Your task to perform on an android device: Open Google Chrome and open the bookmarks view Image 0: 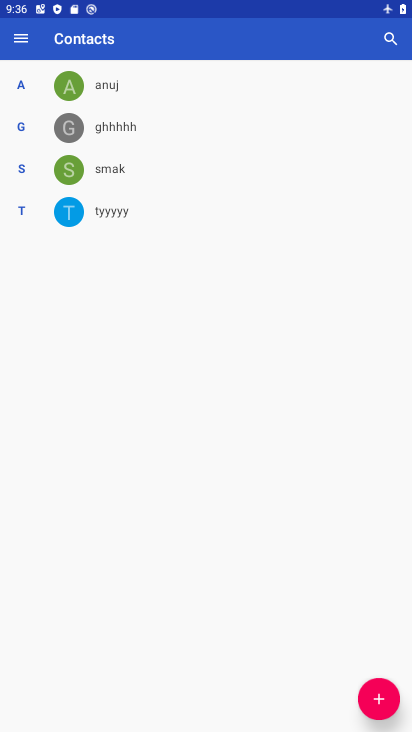
Step 0: press home button
Your task to perform on an android device: Open Google Chrome and open the bookmarks view Image 1: 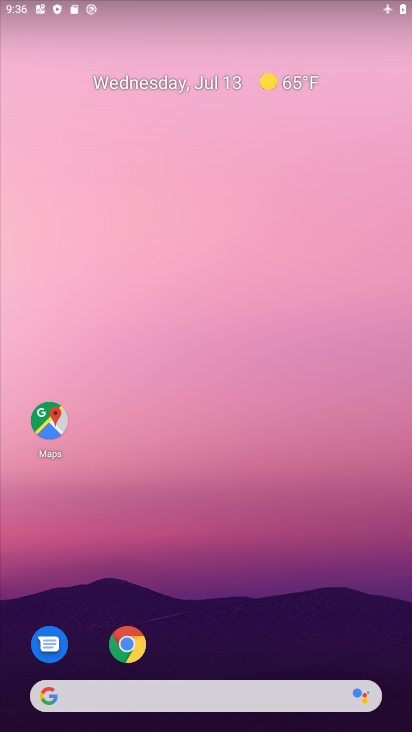
Step 1: drag from (269, 631) to (196, 100)
Your task to perform on an android device: Open Google Chrome and open the bookmarks view Image 2: 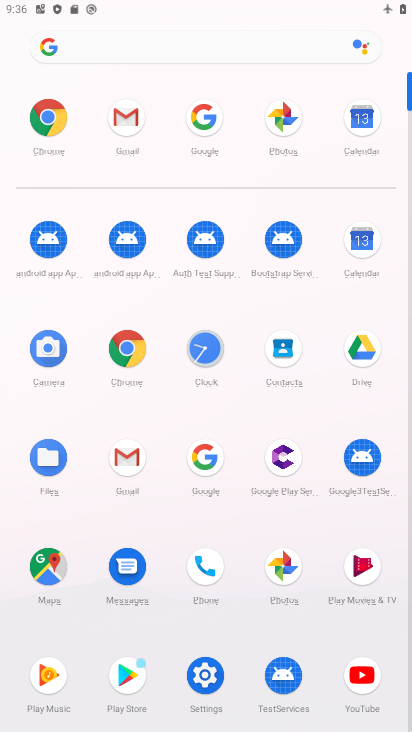
Step 2: click (34, 123)
Your task to perform on an android device: Open Google Chrome and open the bookmarks view Image 3: 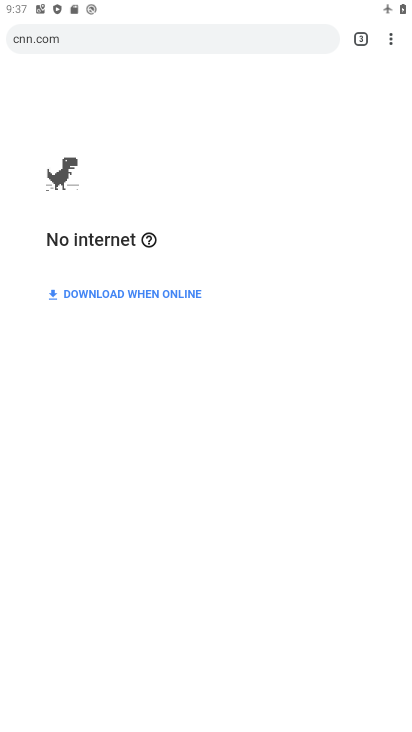
Step 3: task complete